Your task to perform on an android device: What's on my calendar today? Image 0: 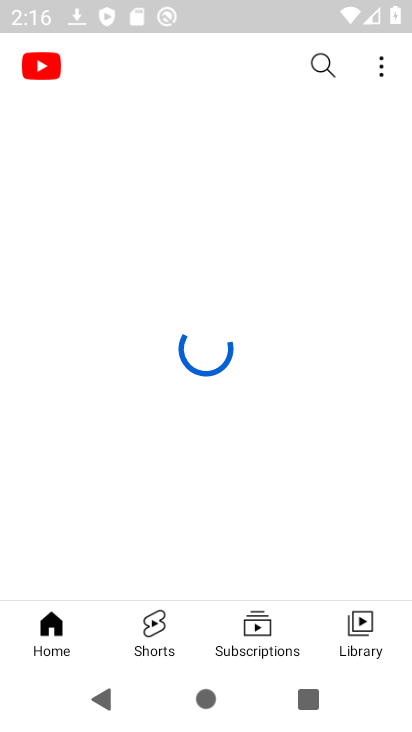
Step 0: press home button
Your task to perform on an android device: What's on my calendar today? Image 1: 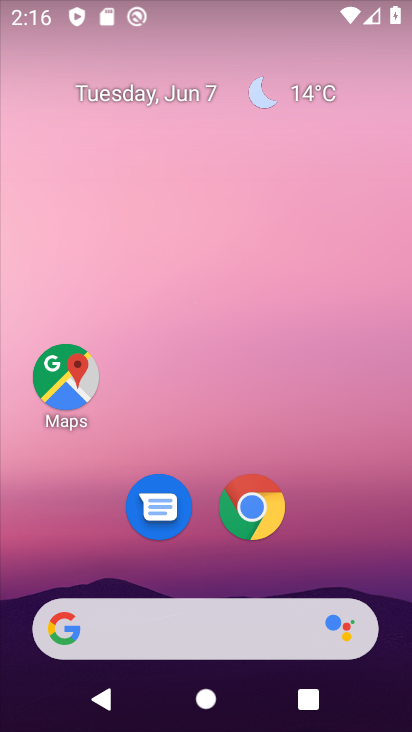
Step 1: drag from (336, 518) to (332, 121)
Your task to perform on an android device: What's on my calendar today? Image 2: 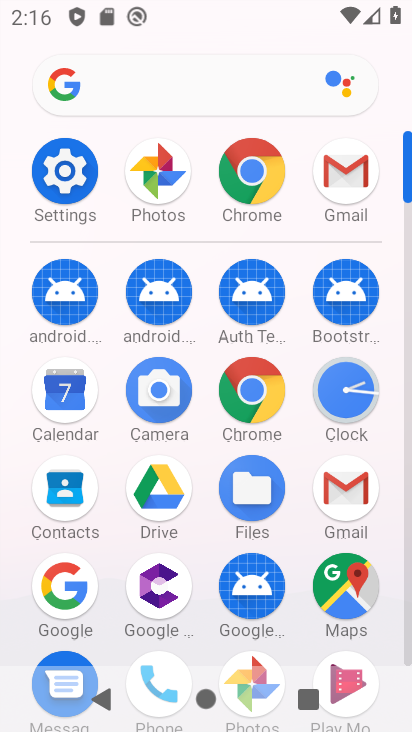
Step 2: click (77, 402)
Your task to perform on an android device: What's on my calendar today? Image 3: 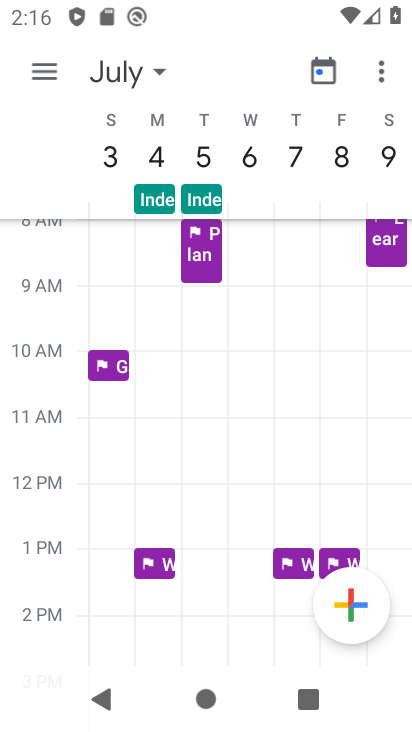
Step 3: click (136, 74)
Your task to perform on an android device: What's on my calendar today? Image 4: 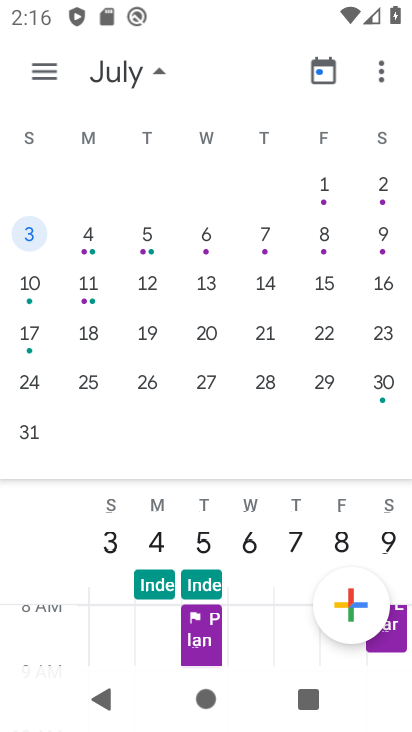
Step 4: drag from (37, 311) to (410, 319)
Your task to perform on an android device: What's on my calendar today? Image 5: 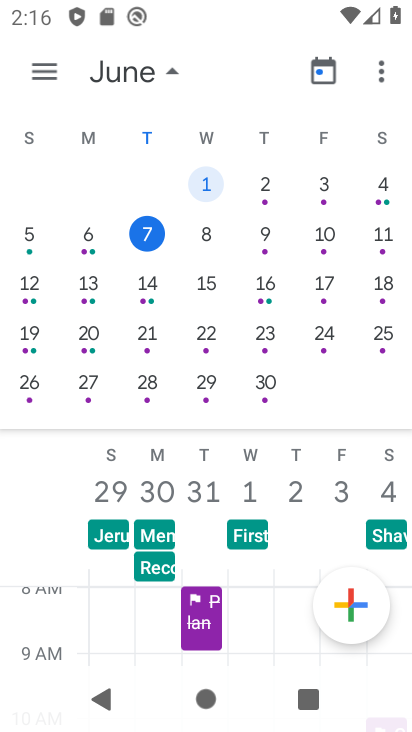
Step 5: click (142, 233)
Your task to perform on an android device: What's on my calendar today? Image 6: 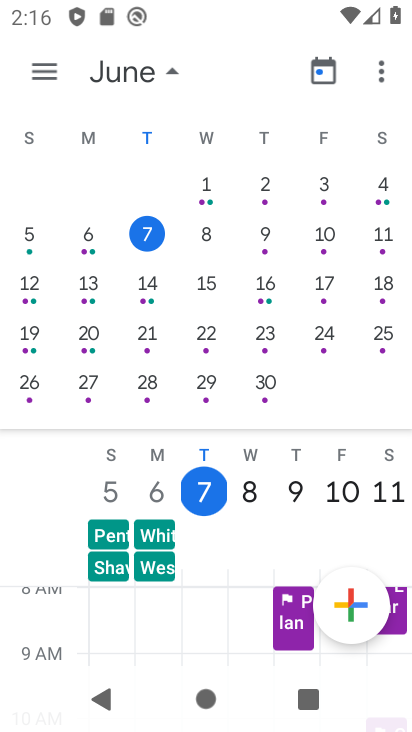
Step 6: click (208, 487)
Your task to perform on an android device: What's on my calendar today? Image 7: 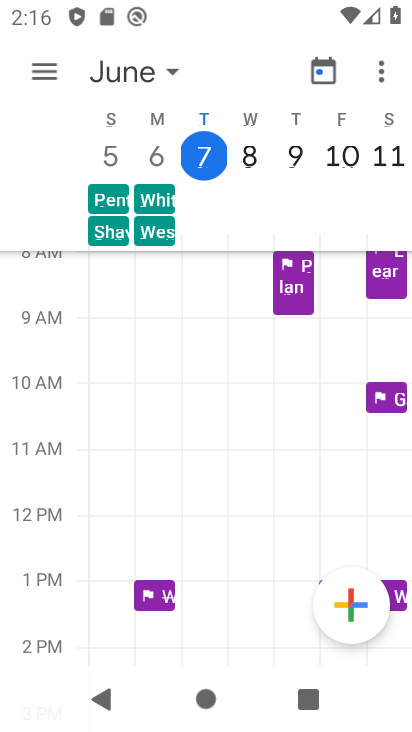
Step 7: task complete